Your task to perform on an android device: Open Google Chrome and open the bookmarks view Image 0: 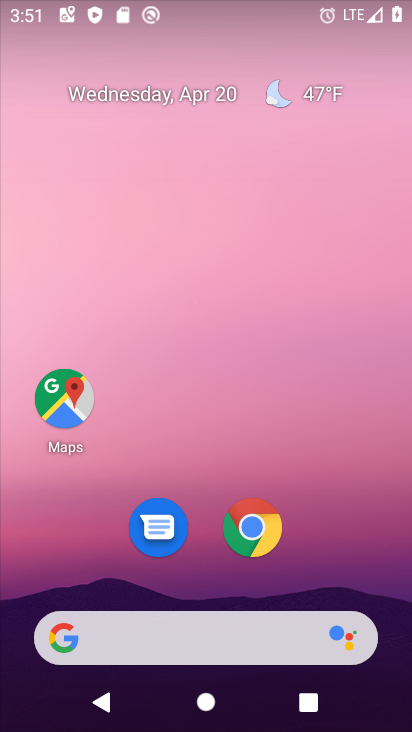
Step 0: click (260, 533)
Your task to perform on an android device: Open Google Chrome and open the bookmarks view Image 1: 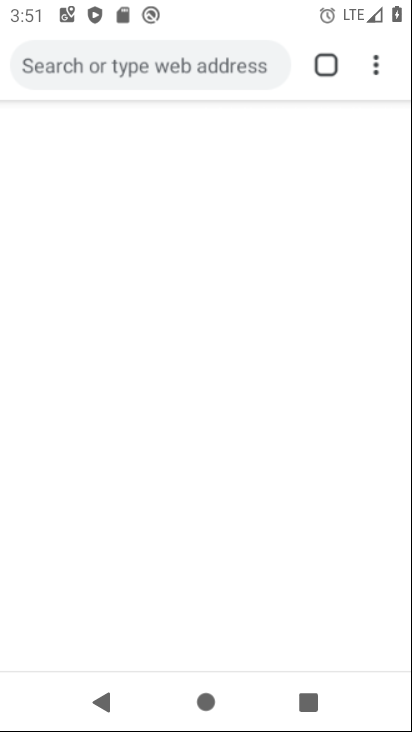
Step 1: click (375, 59)
Your task to perform on an android device: Open Google Chrome and open the bookmarks view Image 2: 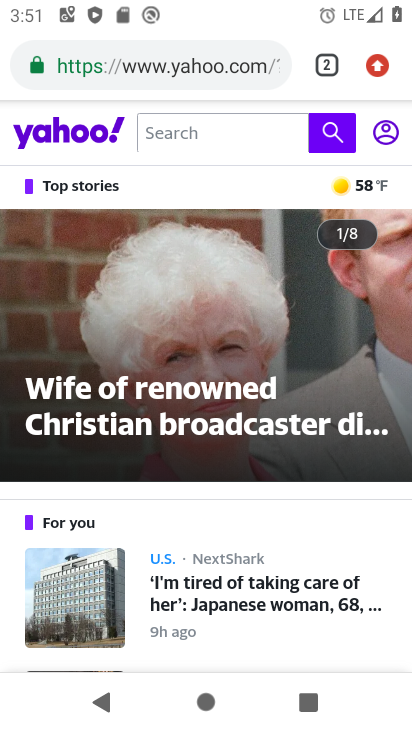
Step 2: task complete